Your task to perform on an android device: turn notification dots on Image 0: 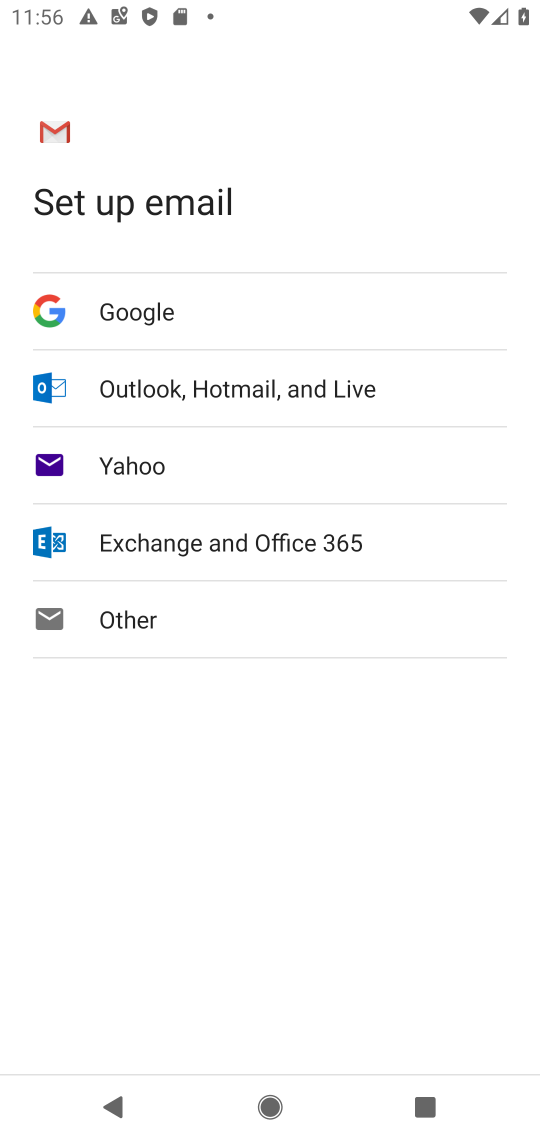
Step 0: press home button
Your task to perform on an android device: turn notification dots on Image 1: 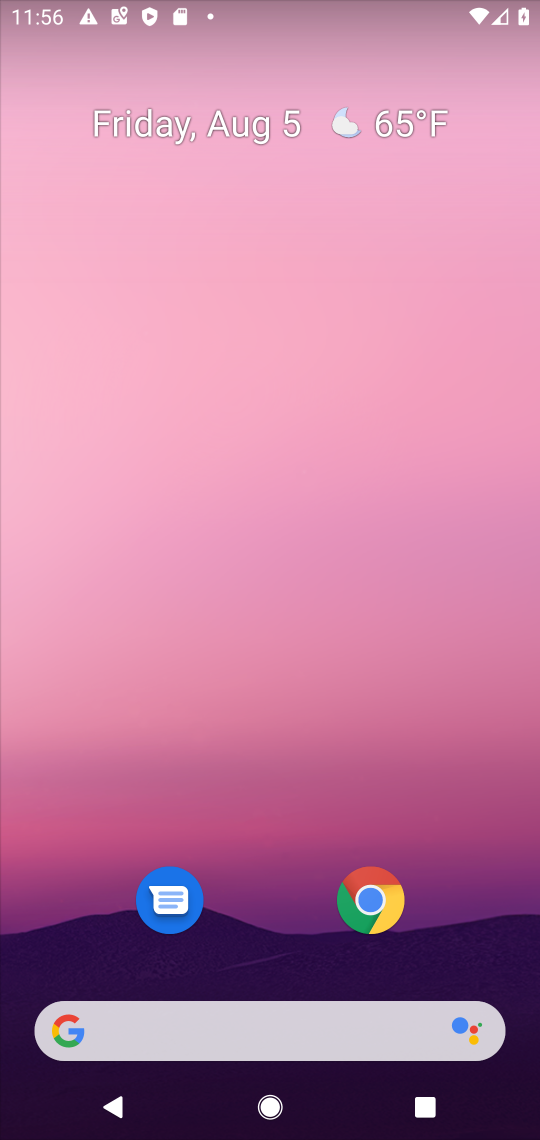
Step 1: drag from (255, 879) to (251, 158)
Your task to perform on an android device: turn notification dots on Image 2: 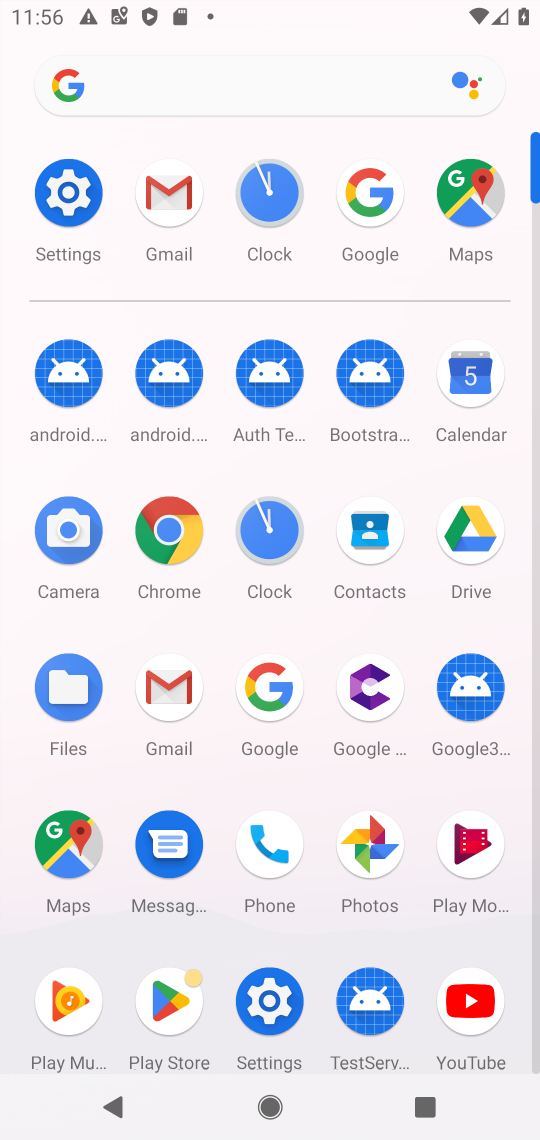
Step 2: click (66, 195)
Your task to perform on an android device: turn notification dots on Image 3: 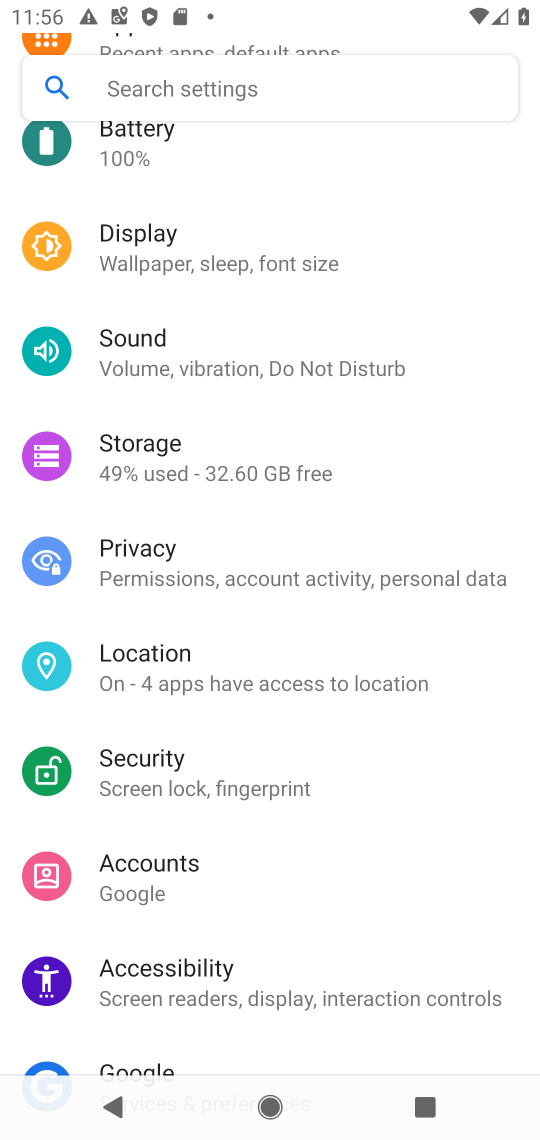
Step 3: drag from (197, 234) to (207, 934)
Your task to perform on an android device: turn notification dots on Image 4: 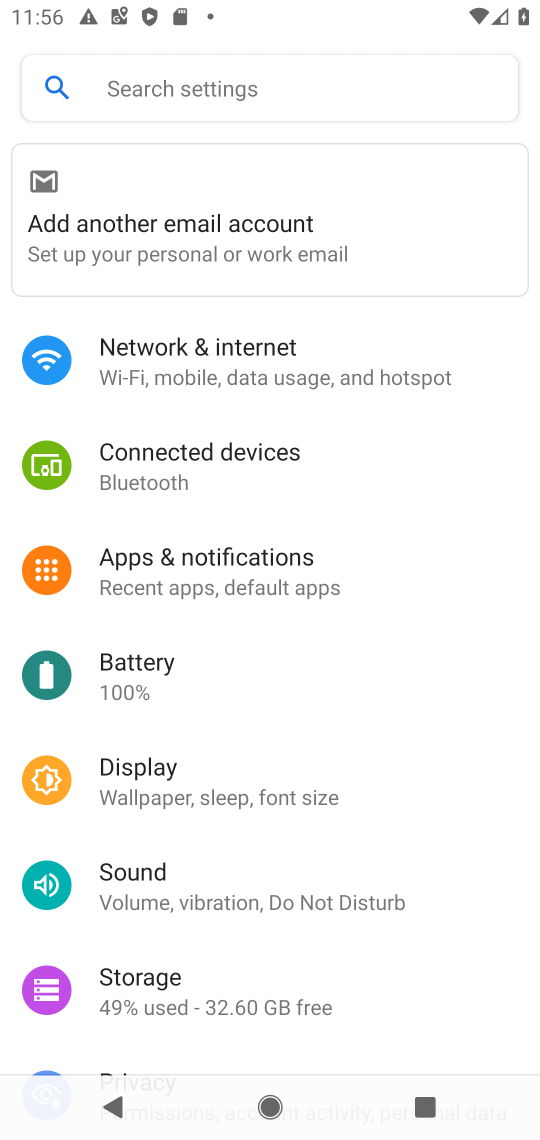
Step 4: click (212, 557)
Your task to perform on an android device: turn notification dots on Image 5: 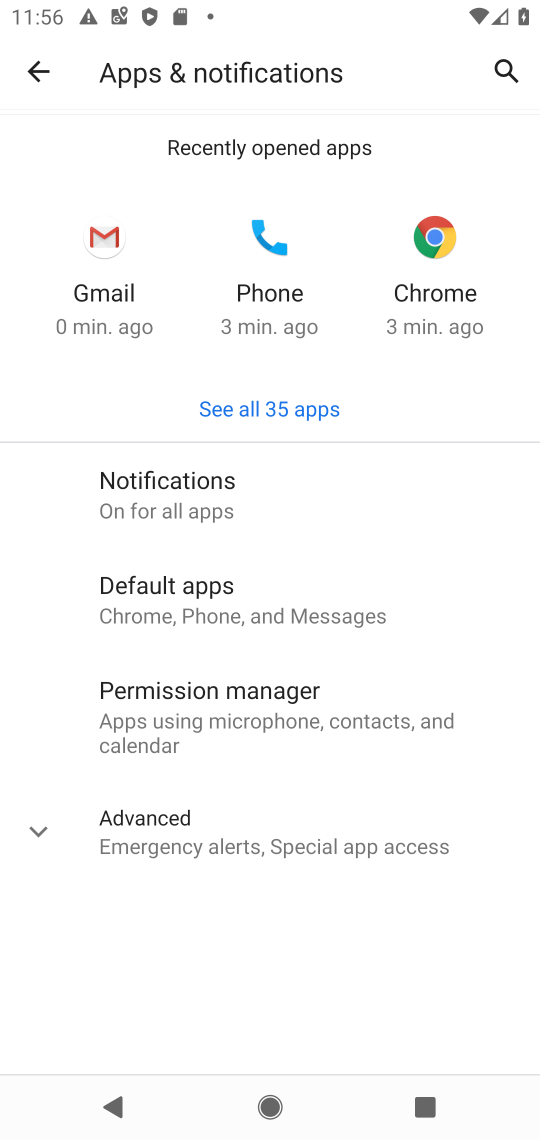
Step 5: click (181, 496)
Your task to perform on an android device: turn notification dots on Image 6: 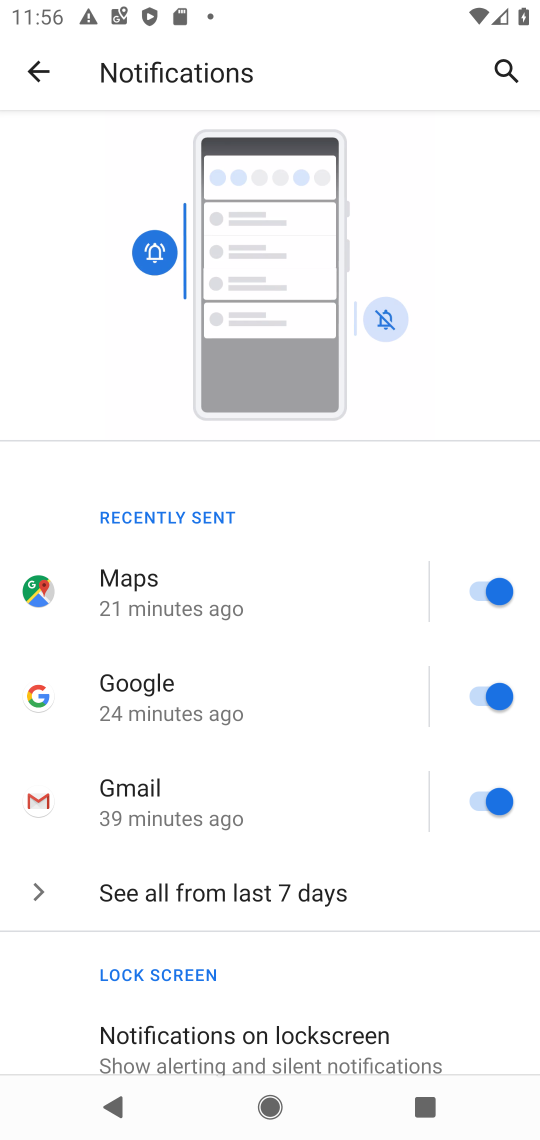
Step 6: drag from (211, 1015) to (191, 611)
Your task to perform on an android device: turn notification dots on Image 7: 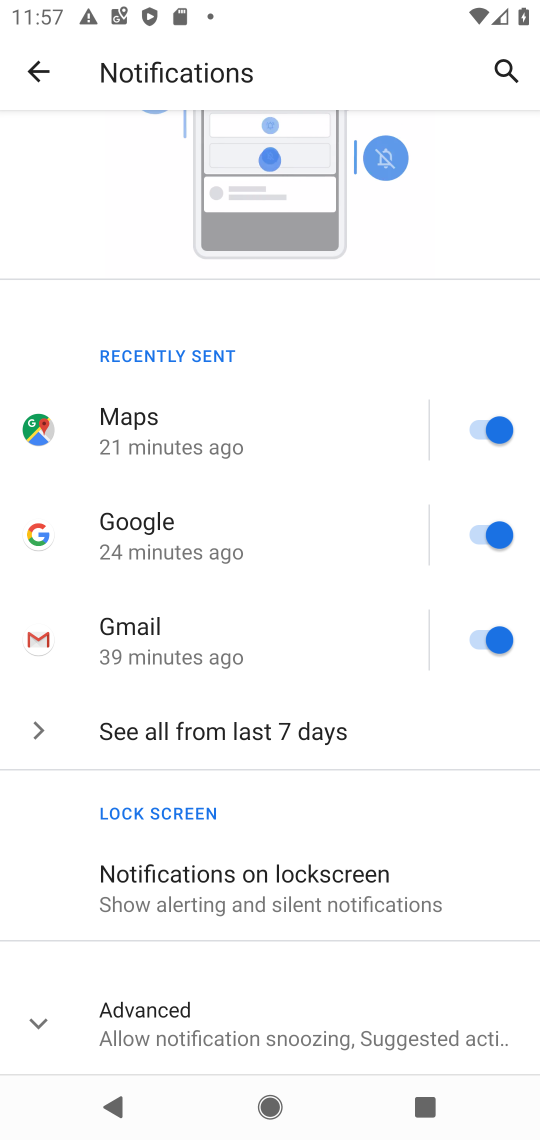
Step 7: click (154, 1010)
Your task to perform on an android device: turn notification dots on Image 8: 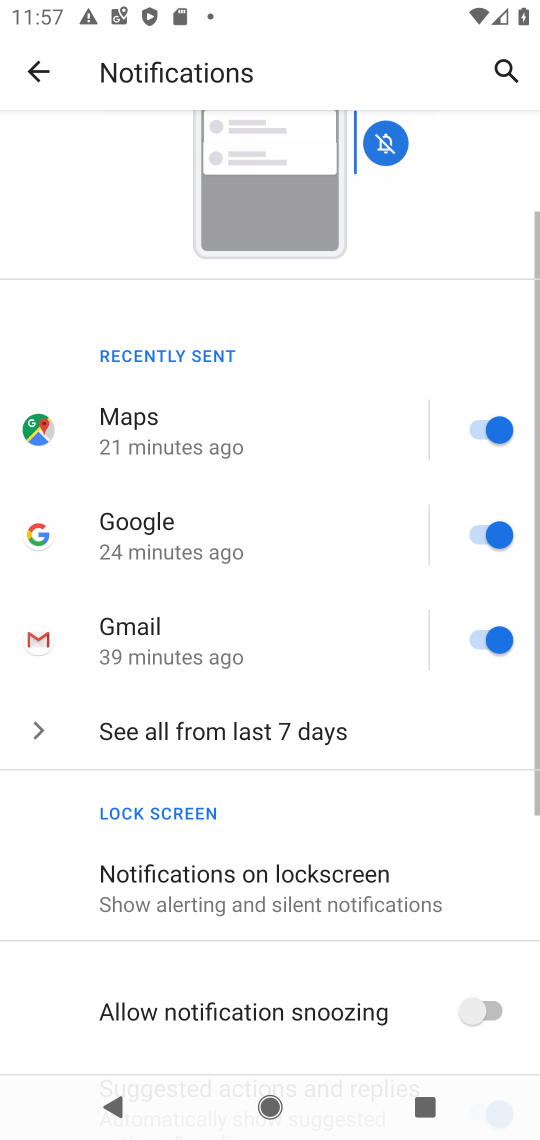
Step 8: task complete